Your task to perform on an android device: What's on my calendar today? Image 0: 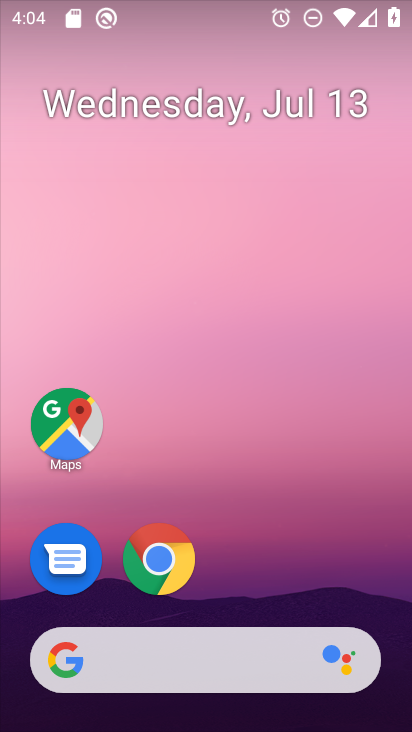
Step 0: drag from (361, 574) to (325, 165)
Your task to perform on an android device: What's on my calendar today? Image 1: 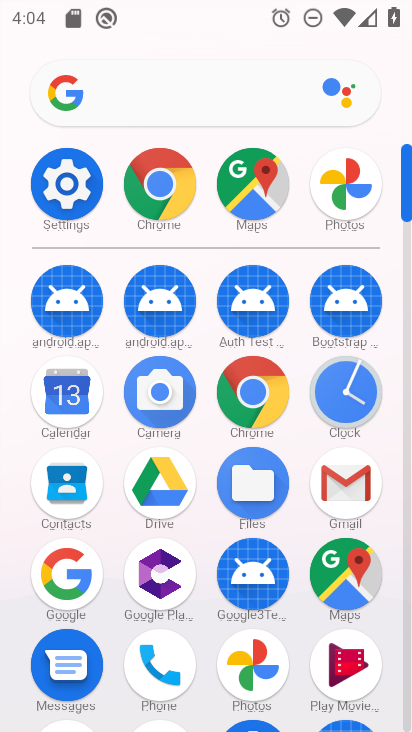
Step 1: click (79, 408)
Your task to perform on an android device: What's on my calendar today? Image 2: 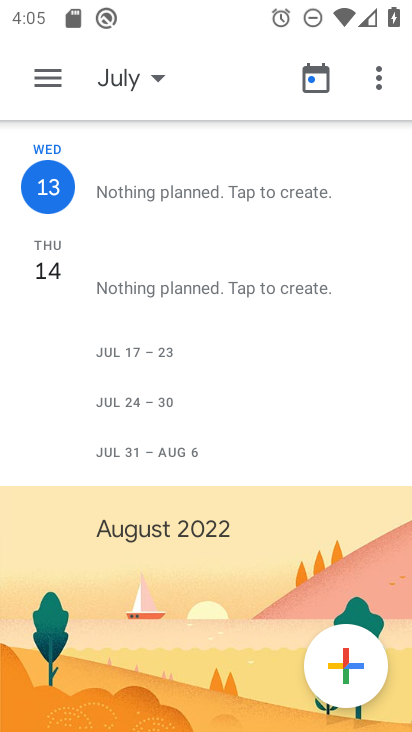
Step 2: task complete